Your task to perform on an android device: What's the weather? Image 0: 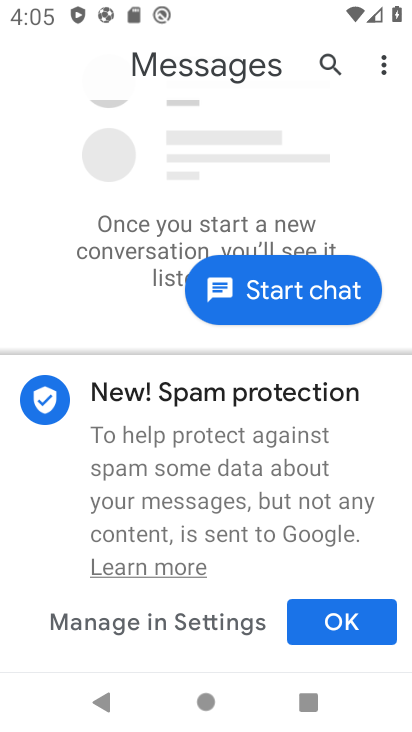
Step 0: press home button
Your task to perform on an android device: What's the weather? Image 1: 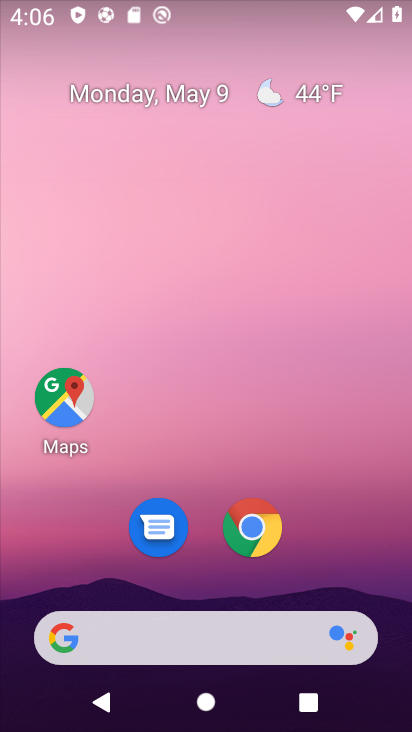
Step 1: click (332, 80)
Your task to perform on an android device: What's the weather? Image 2: 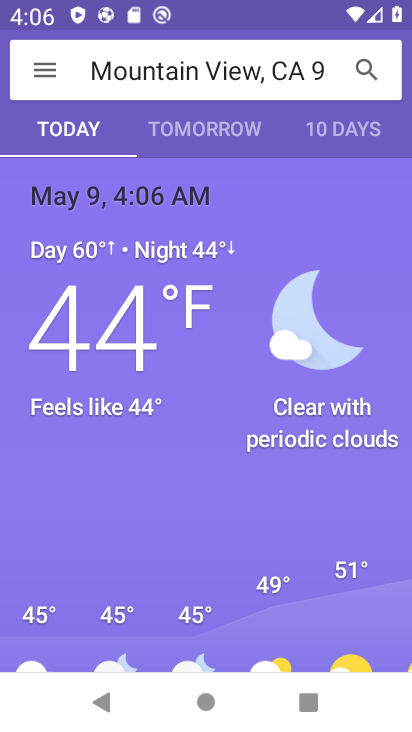
Step 2: click (248, 539)
Your task to perform on an android device: What's the weather? Image 3: 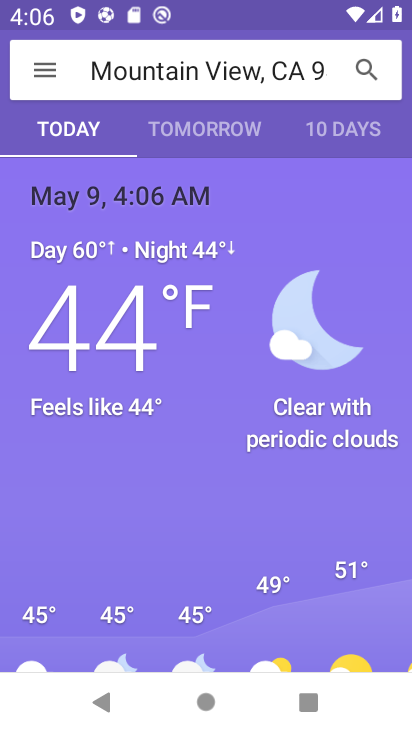
Step 3: click (248, 539)
Your task to perform on an android device: What's the weather? Image 4: 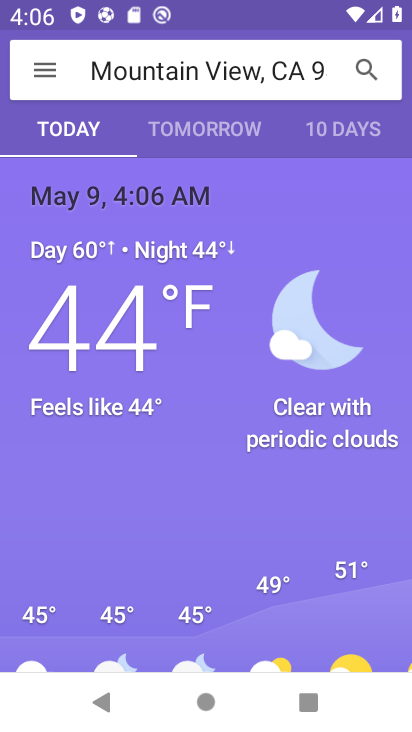
Step 4: task complete